Your task to perform on an android device: Open internet settings Image 0: 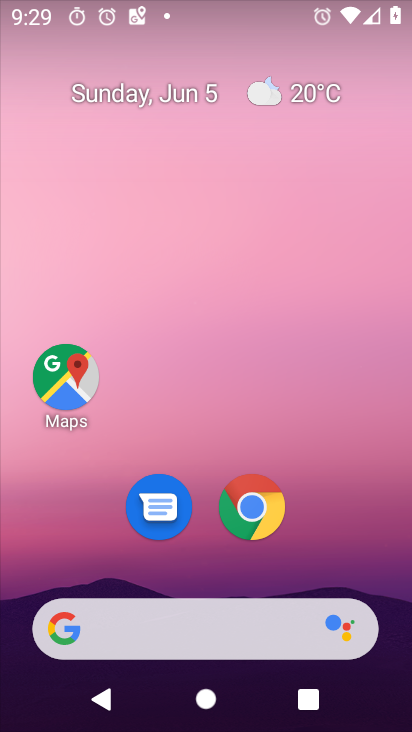
Step 0: drag from (337, 533) to (244, 34)
Your task to perform on an android device: Open internet settings Image 1: 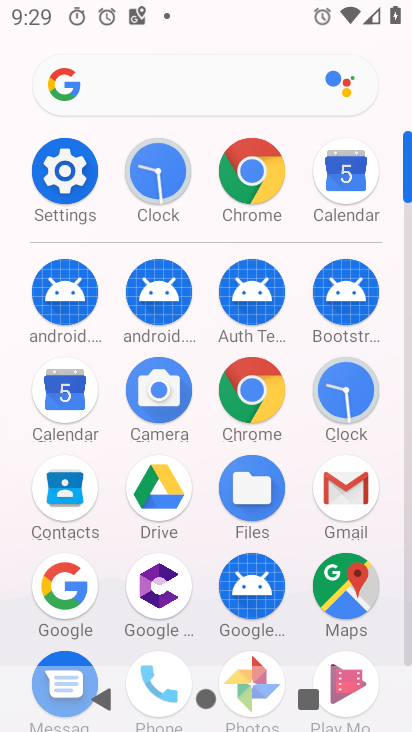
Step 1: drag from (5, 548) to (5, 321)
Your task to perform on an android device: Open internet settings Image 2: 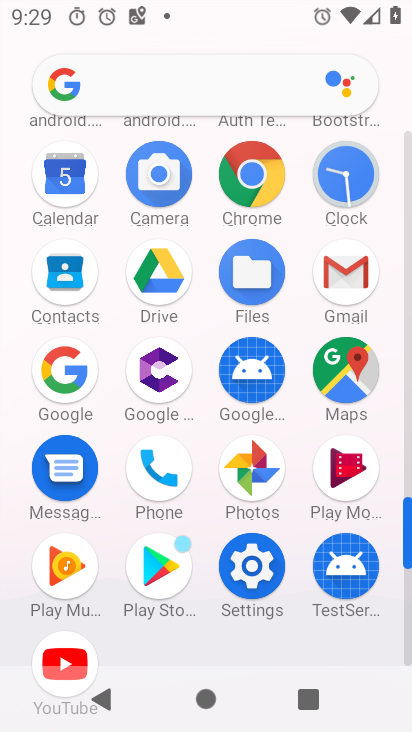
Step 2: click (256, 562)
Your task to perform on an android device: Open internet settings Image 3: 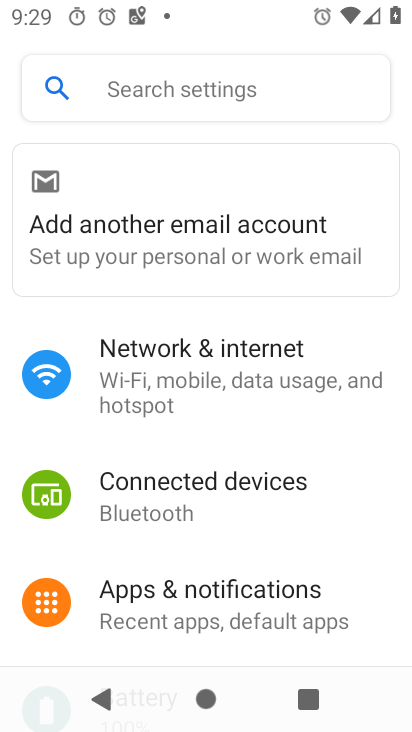
Step 3: click (242, 392)
Your task to perform on an android device: Open internet settings Image 4: 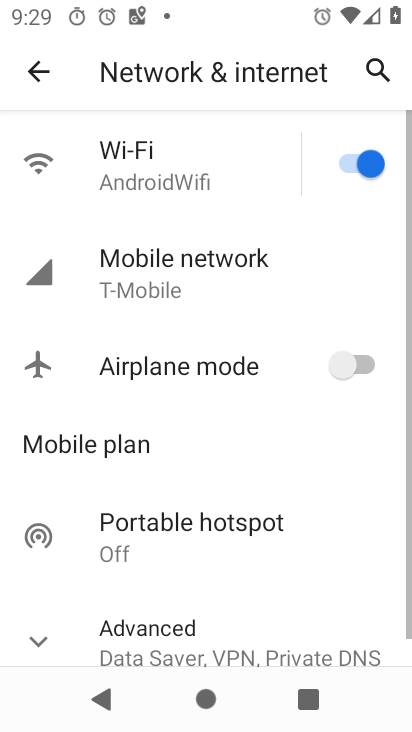
Step 4: click (52, 631)
Your task to perform on an android device: Open internet settings Image 5: 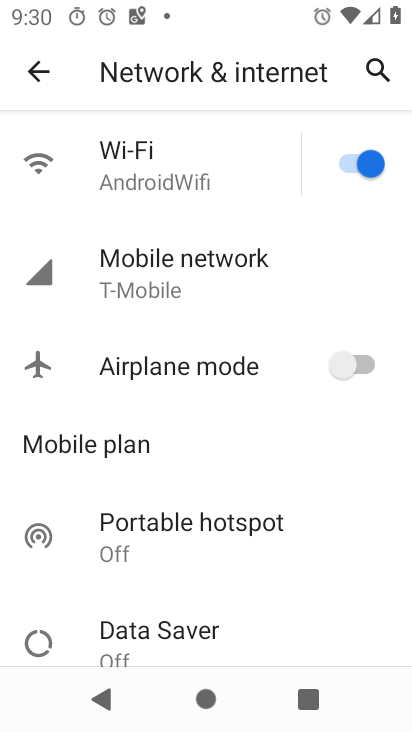
Step 5: task complete